Your task to perform on an android device: remove spam from my inbox in the gmail app Image 0: 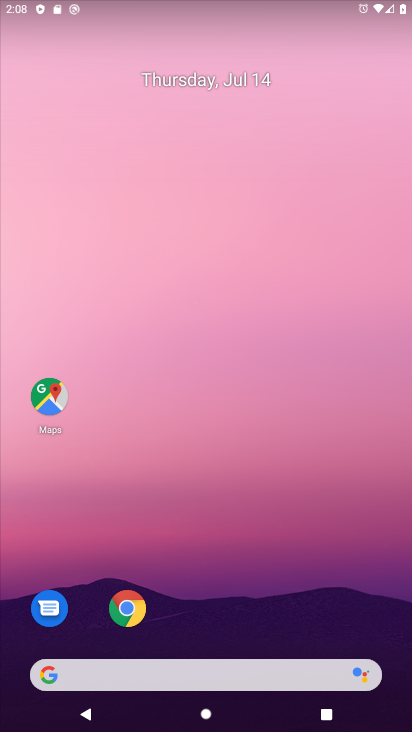
Step 0: drag from (223, 666) to (226, 190)
Your task to perform on an android device: remove spam from my inbox in the gmail app Image 1: 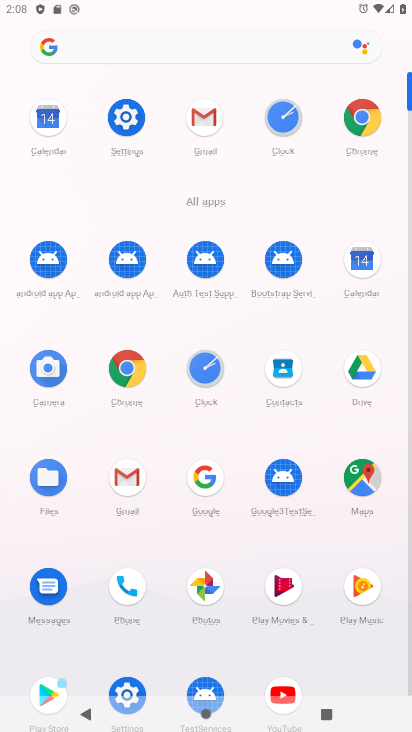
Step 1: click (118, 471)
Your task to perform on an android device: remove spam from my inbox in the gmail app Image 2: 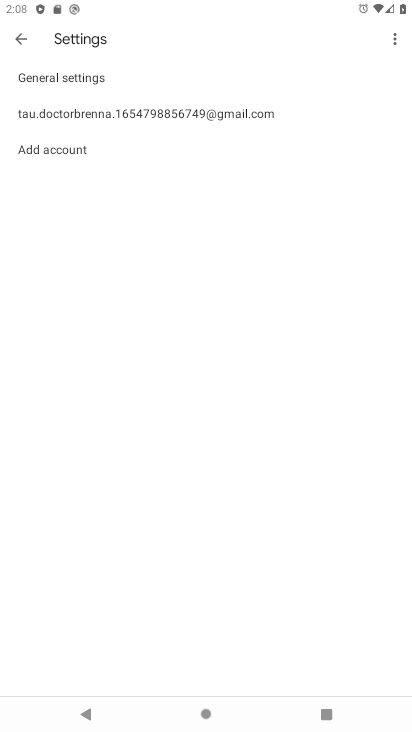
Step 2: click (19, 33)
Your task to perform on an android device: remove spam from my inbox in the gmail app Image 3: 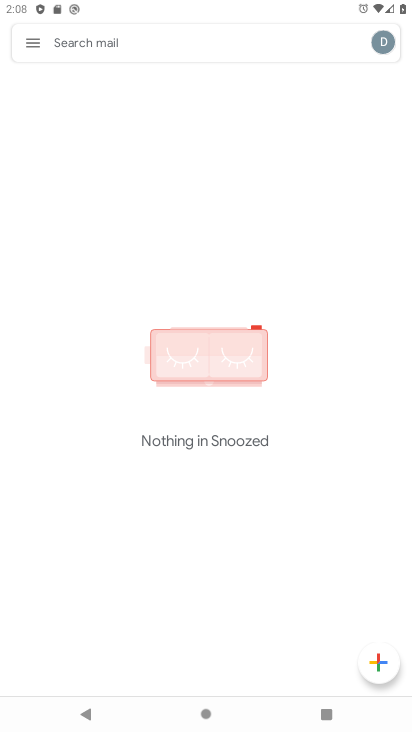
Step 3: click (32, 43)
Your task to perform on an android device: remove spam from my inbox in the gmail app Image 4: 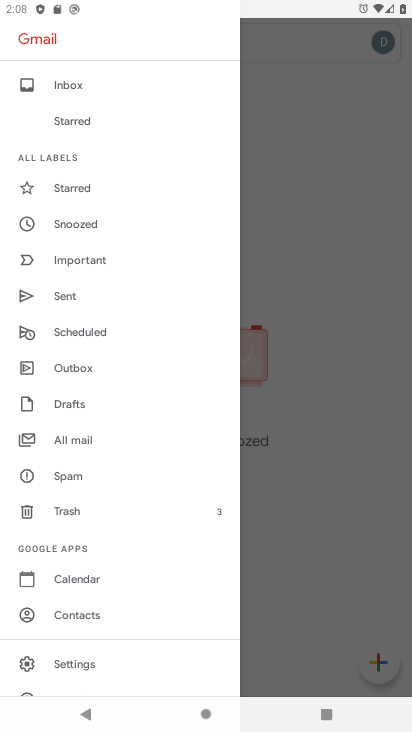
Step 4: click (70, 86)
Your task to perform on an android device: remove spam from my inbox in the gmail app Image 5: 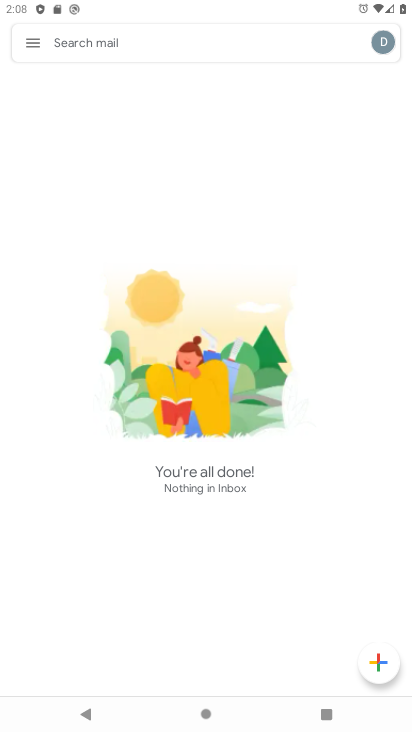
Step 5: task complete